Your task to perform on an android device: Open the Play Movies app and select the watchlist tab. Image 0: 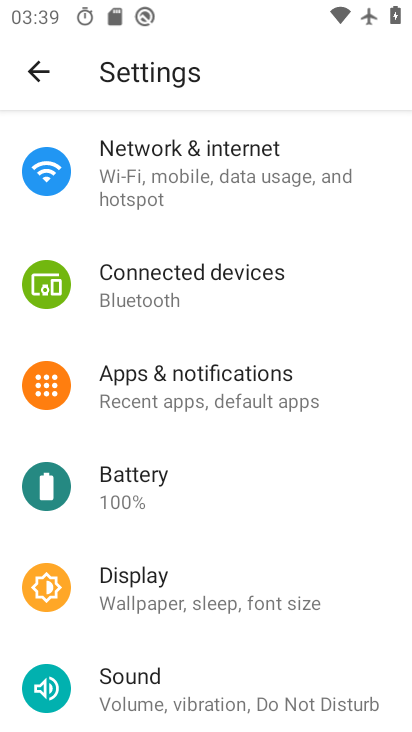
Step 0: press home button
Your task to perform on an android device: Open the Play Movies app and select the watchlist tab. Image 1: 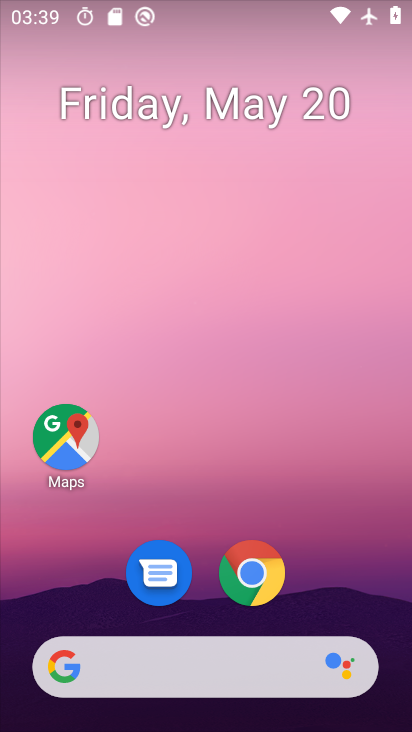
Step 1: drag from (206, 618) to (168, 237)
Your task to perform on an android device: Open the Play Movies app and select the watchlist tab. Image 2: 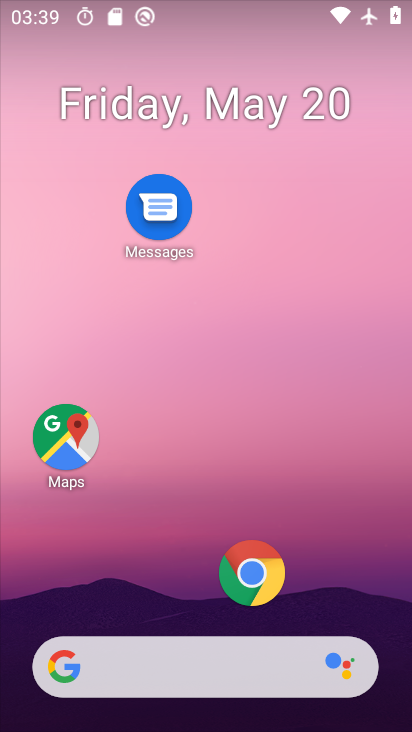
Step 2: drag from (178, 602) to (194, 255)
Your task to perform on an android device: Open the Play Movies app and select the watchlist tab. Image 3: 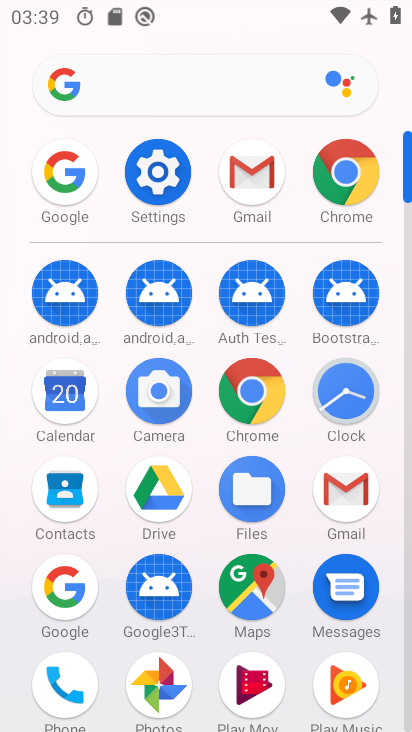
Step 3: click (262, 672)
Your task to perform on an android device: Open the Play Movies app and select the watchlist tab. Image 4: 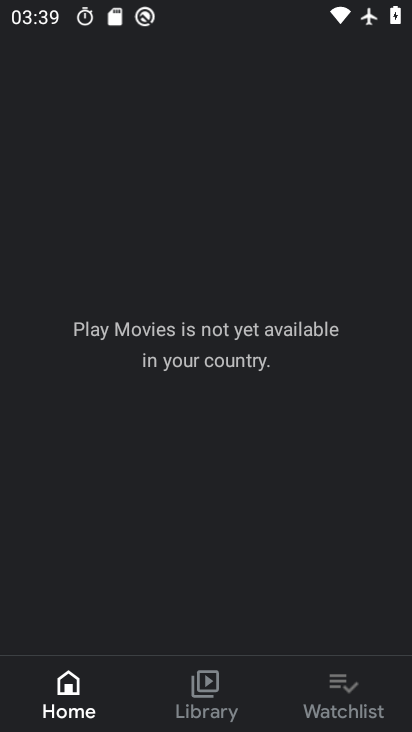
Step 4: click (329, 687)
Your task to perform on an android device: Open the Play Movies app and select the watchlist tab. Image 5: 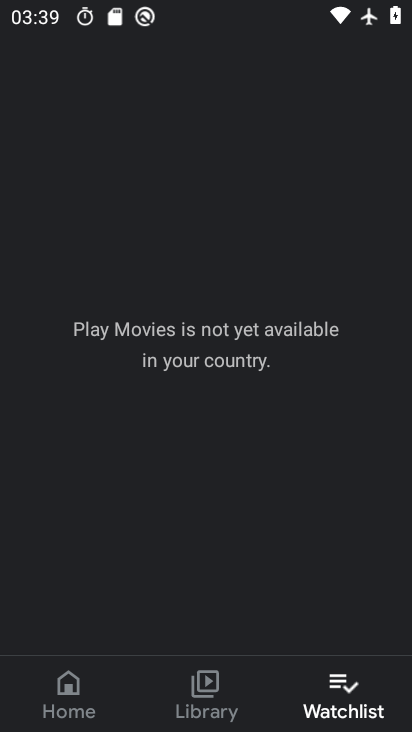
Step 5: task complete